Your task to perform on an android device: check storage Image 0: 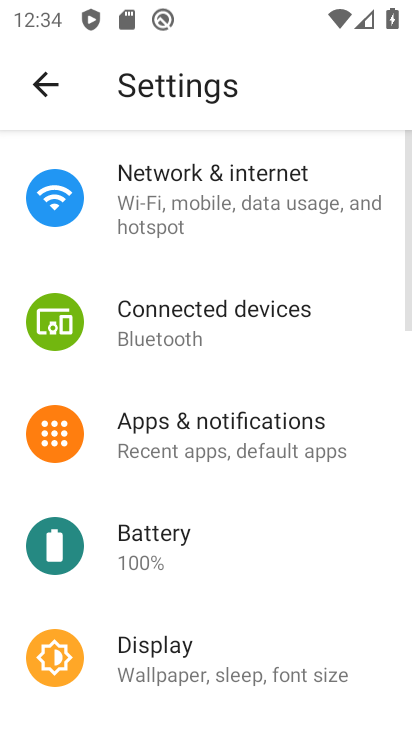
Step 0: drag from (279, 583) to (234, 286)
Your task to perform on an android device: check storage Image 1: 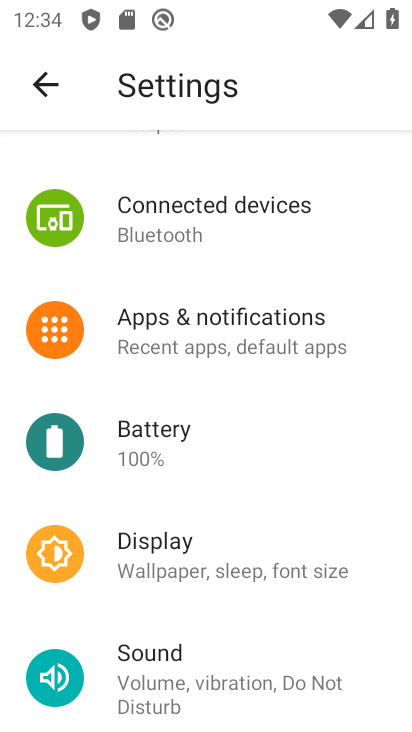
Step 1: drag from (243, 483) to (206, 244)
Your task to perform on an android device: check storage Image 2: 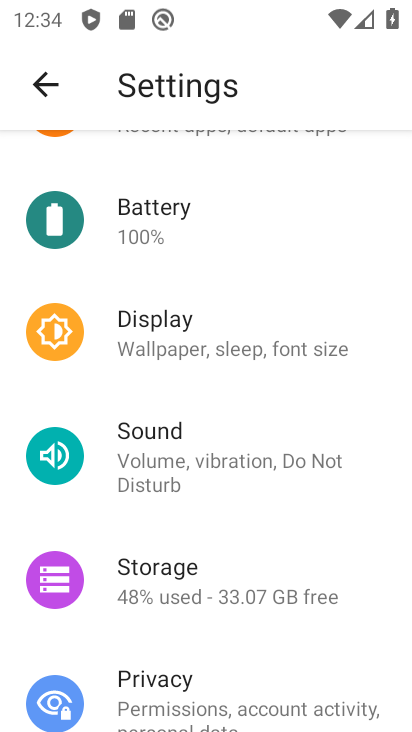
Step 2: click (159, 578)
Your task to perform on an android device: check storage Image 3: 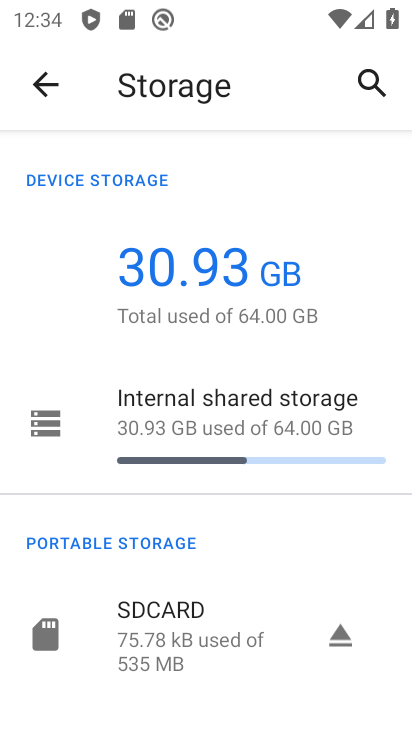
Step 3: task complete